Your task to perform on an android device: Search for Italian restaurants on Maps Image 0: 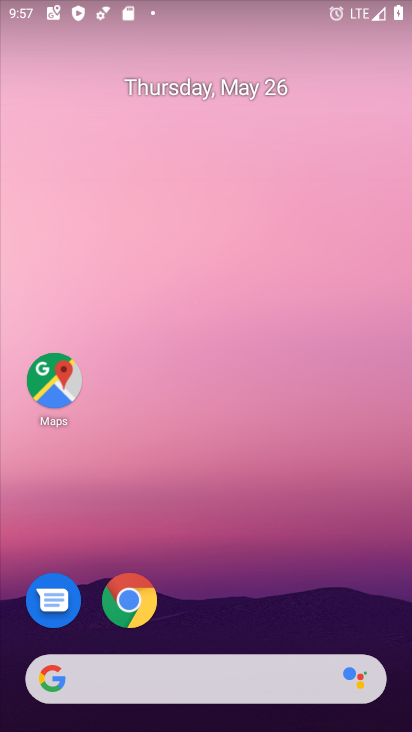
Step 0: drag from (287, 534) to (269, 146)
Your task to perform on an android device: Search for Italian restaurants on Maps Image 1: 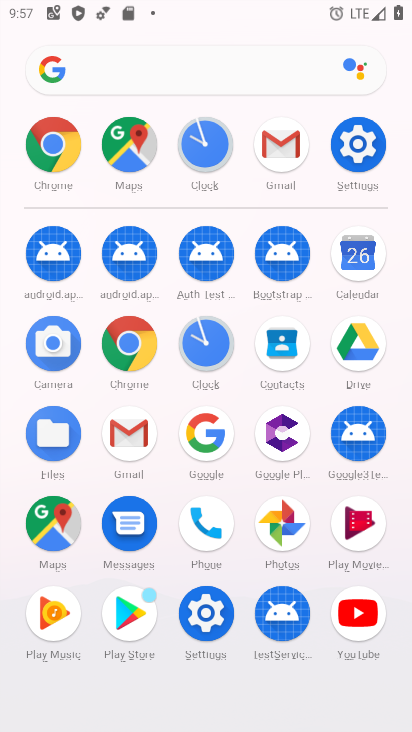
Step 1: click (142, 149)
Your task to perform on an android device: Search for Italian restaurants on Maps Image 2: 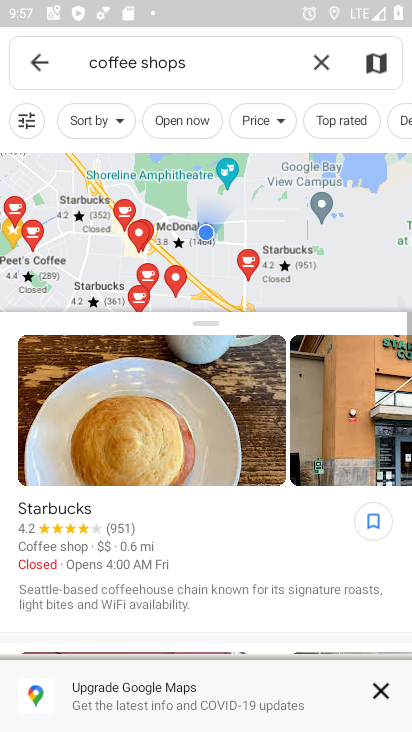
Step 2: click (256, 74)
Your task to perform on an android device: Search for Italian restaurants on Maps Image 3: 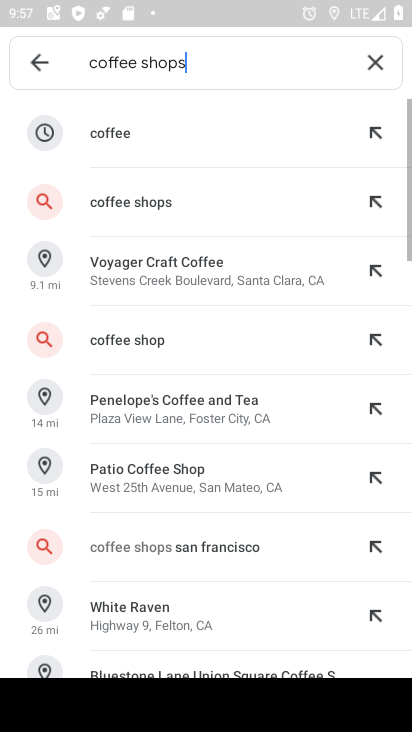
Step 3: click (381, 62)
Your task to perform on an android device: Search for Italian restaurants on Maps Image 4: 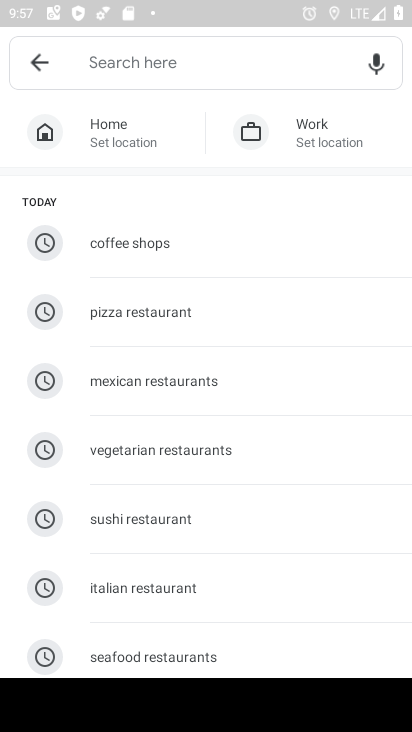
Step 4: type "Italian restaurants"
Your task to perform on an android device: Search for Italian restaurants on Maps Image 5: 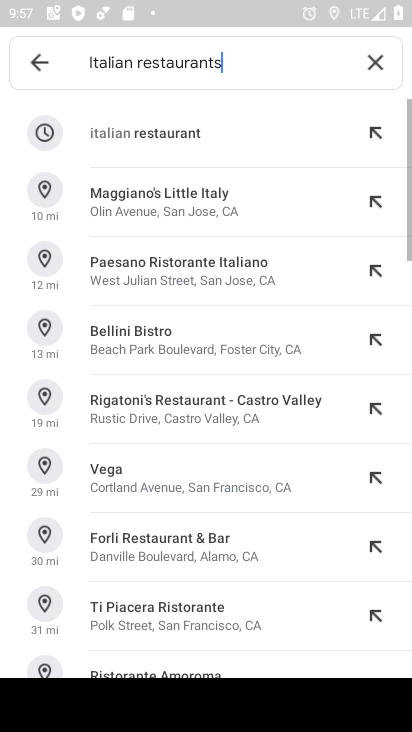
Step 5: click (104, 115)
Your task to perform on an android device: Search for Italian restaurants on Maps Image 6: 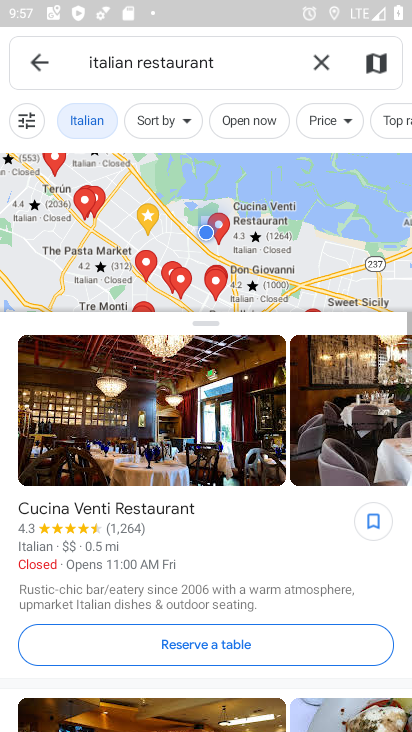
Step 6: task complete